Your task to perform on an android device: What is the news today? Image 0: 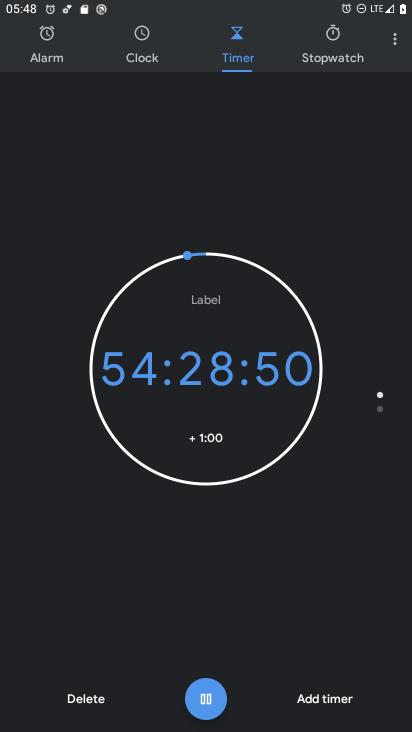
Step 0: press home button
Your task to perform on an android device: What is the news today? Image 1: 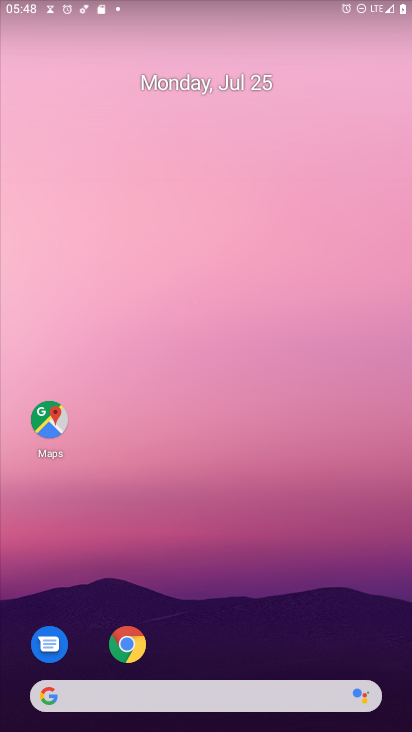
Step 1: click (45, 694)
Your task to perform on an android device: What is the news today? Image 2: 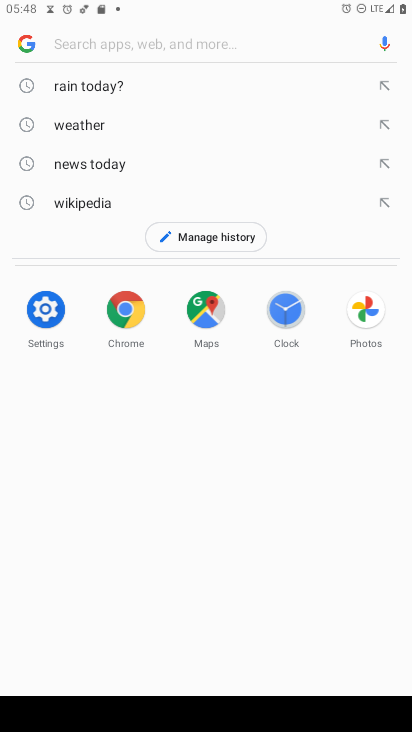
Step 2: click (68, 167)
Your task to perform on an android device: What is the news today? Image 3: 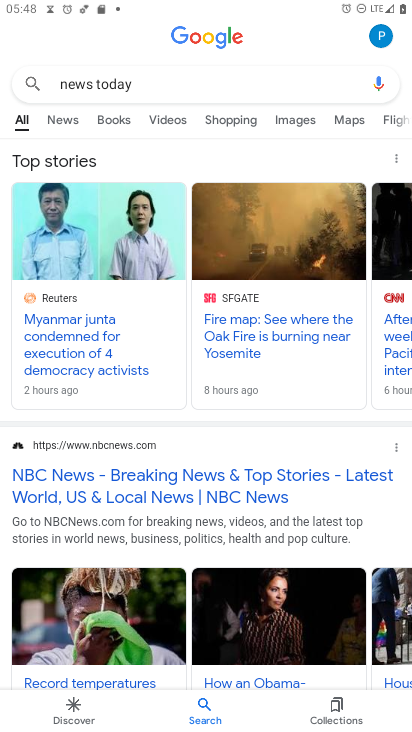
Step 3: task complete